Your task to perform on an android device: Open Google Chrome and open the bookmarks view Image 0: 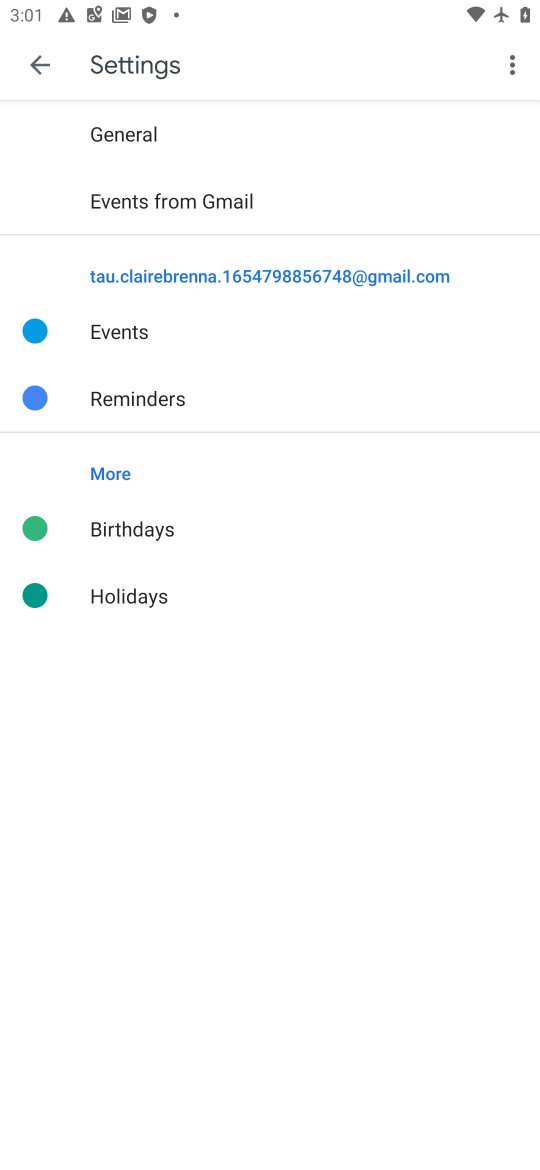
Step 0: press back button
Your task to perform on an android device: Open Google Chrome and open the bookmarks view Image 1: 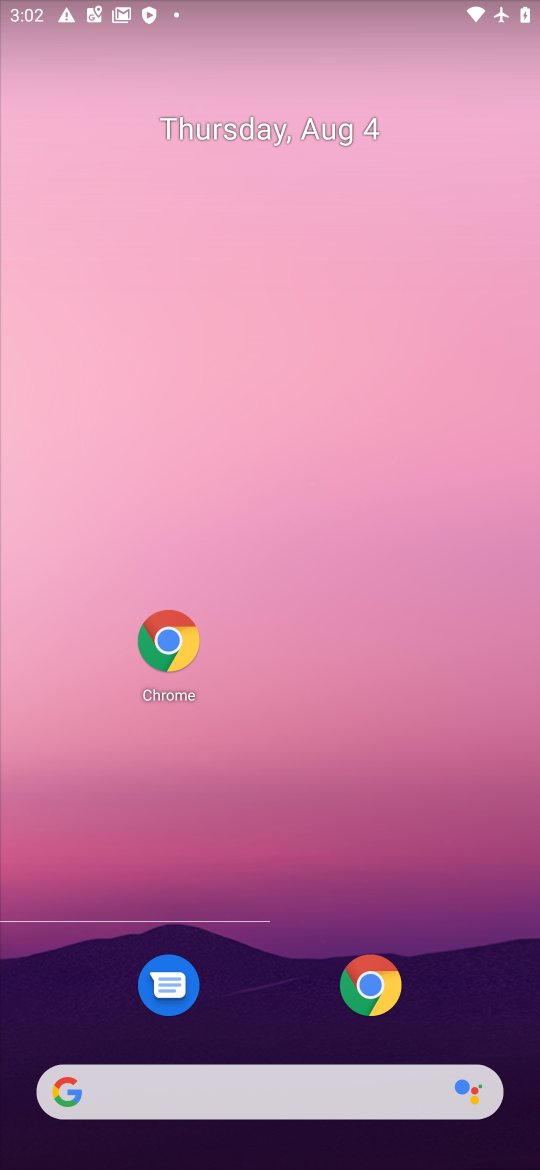
Step 1: drag from (255, 745) to (232, 415)
Your task to perform on an android device: Open Google Chrome and open the bookmarks view Image 2: 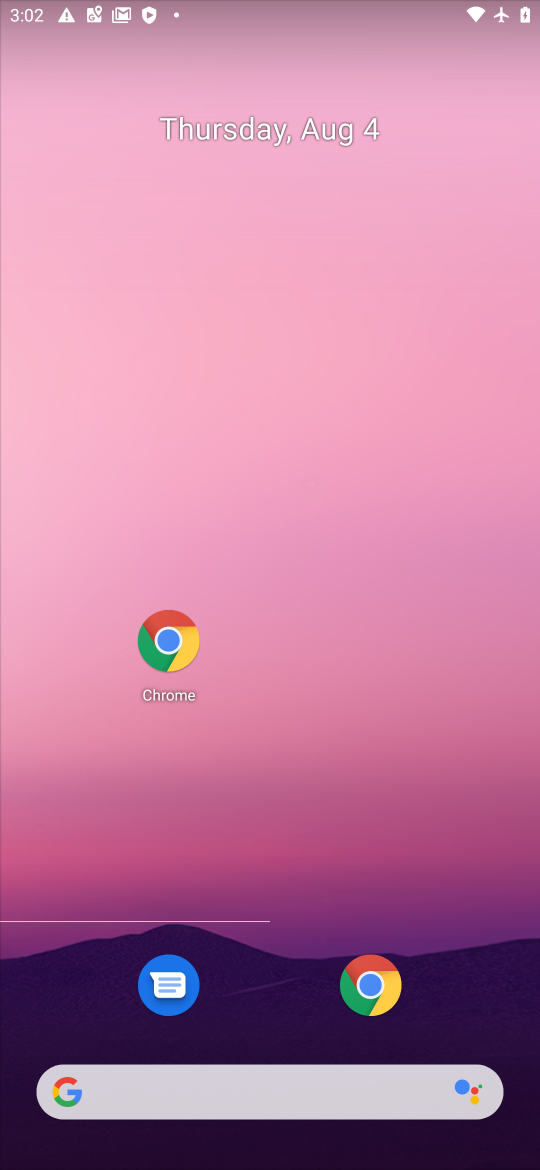
Step 2: drag from (258, 952) to (286, 313)
Your task to perform on an android device: Open Google Chrome and open the bookmarks view Image 3: 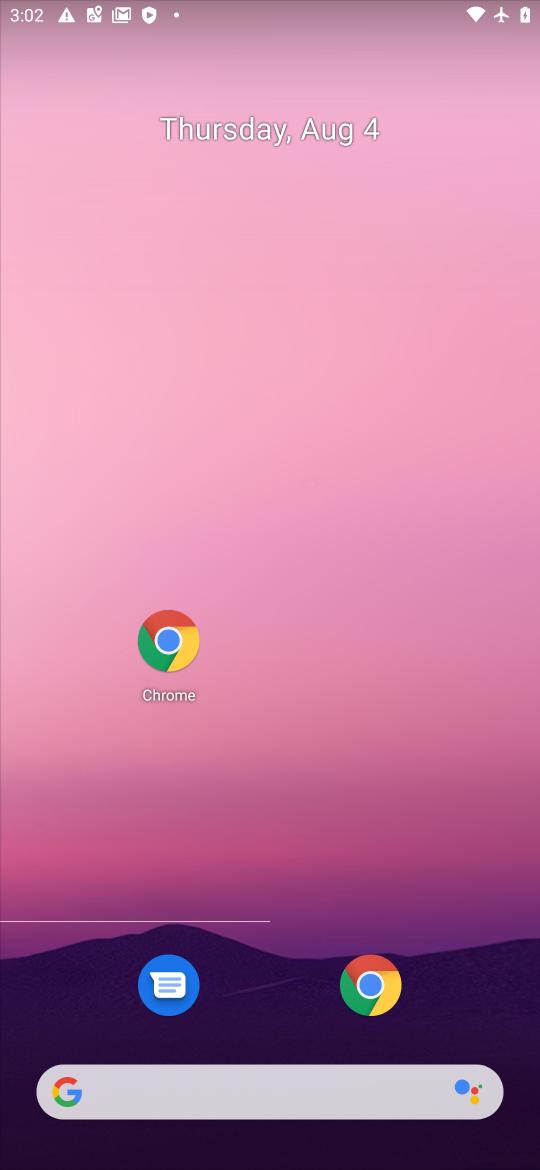
Step 3: drag from (280, 1023) to (297, 491)
Your task to perform on an android device: Open Google Chrome and open the bookmarks view Image 4: 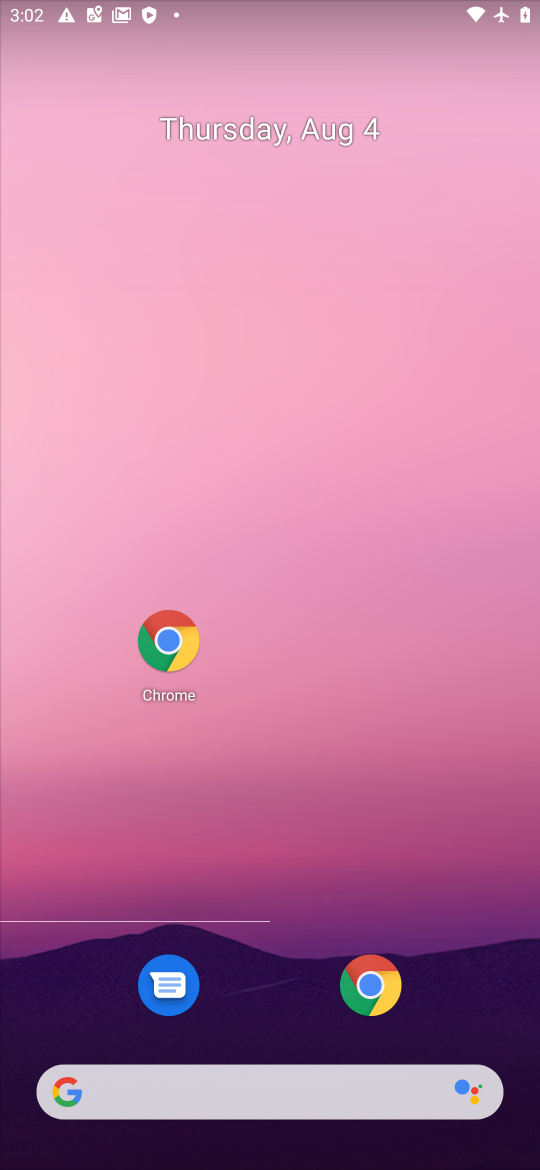
Step 4: drag from (269, 363) to (267, 294)
Your task to perform on an android device: Open Google Chrome and open the bookmarks view Image 5: 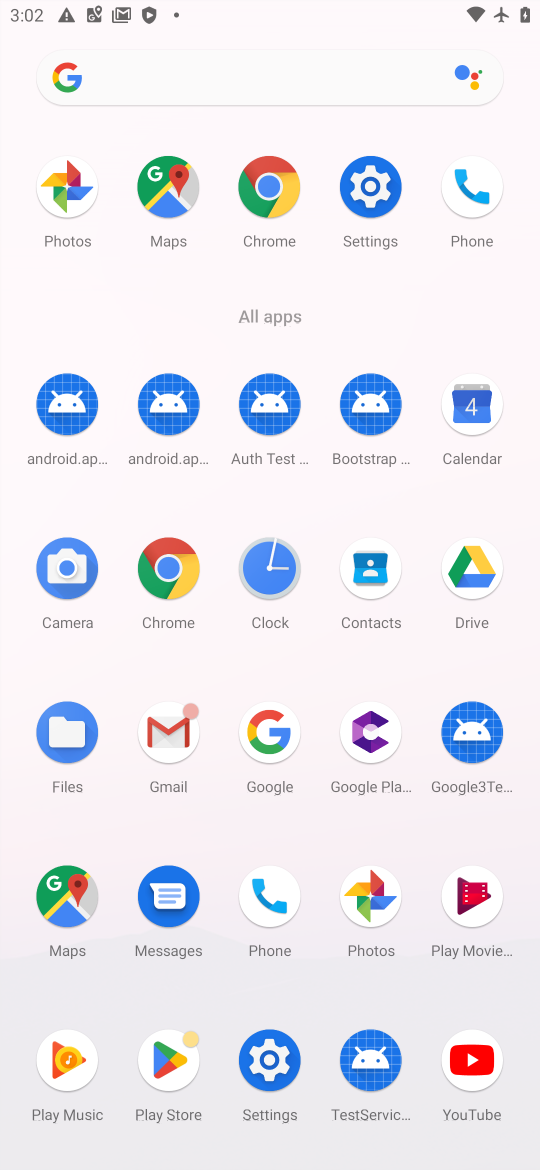
Step 5: drag from (287, 834) to (257, 165)
Your task to perform on an android device: Open Google Chrome and open the bookmarks view Image 6: 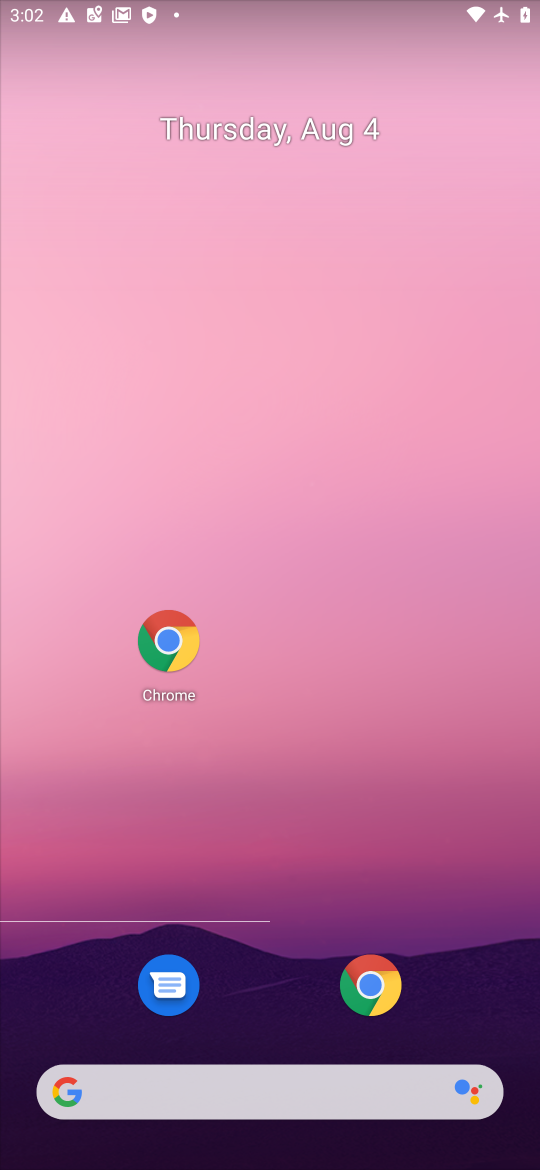
Step 6: drag from (234, 288) to (213, 136)
Your task to perform on an android device: Open Google Chrome and open the bookmarks view Image 7: 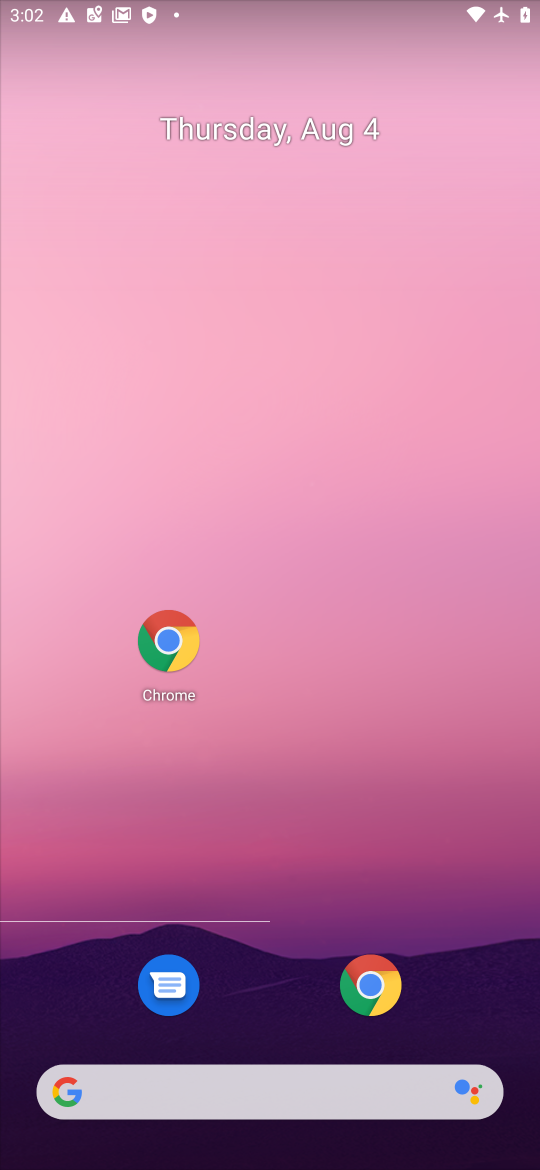
Step 7: drag from (201, 140) to (199, 41)
Your task to perform on an android device: Open Google Chrome and open the bookmarks view Image 8: 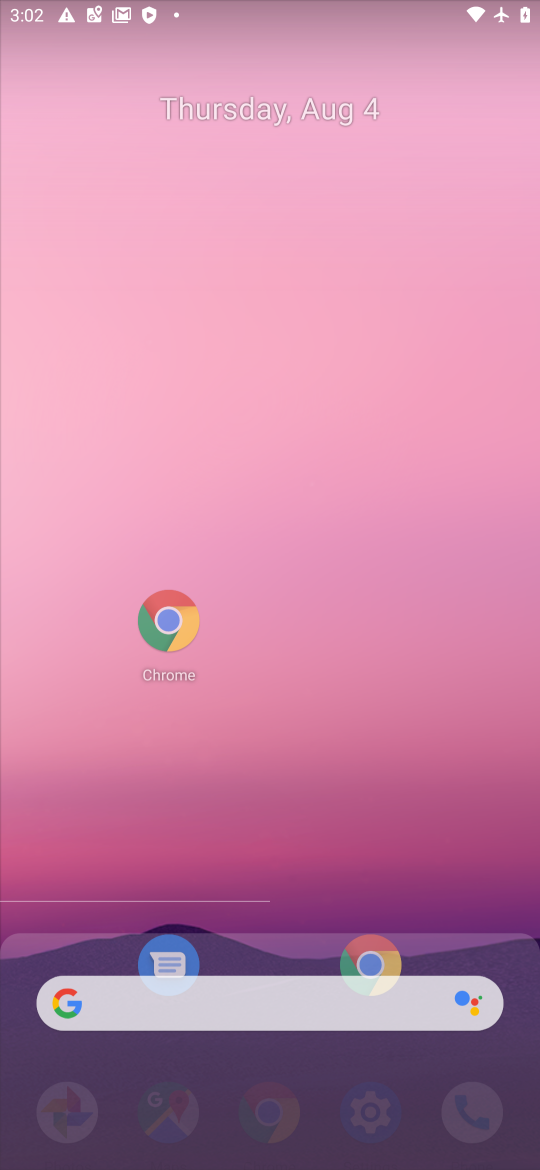
Step 8: drag from (148, 471) to (270, 244)
Your task to perform on an android device: Open Google Chrome and open the bookmarks view Image 9: 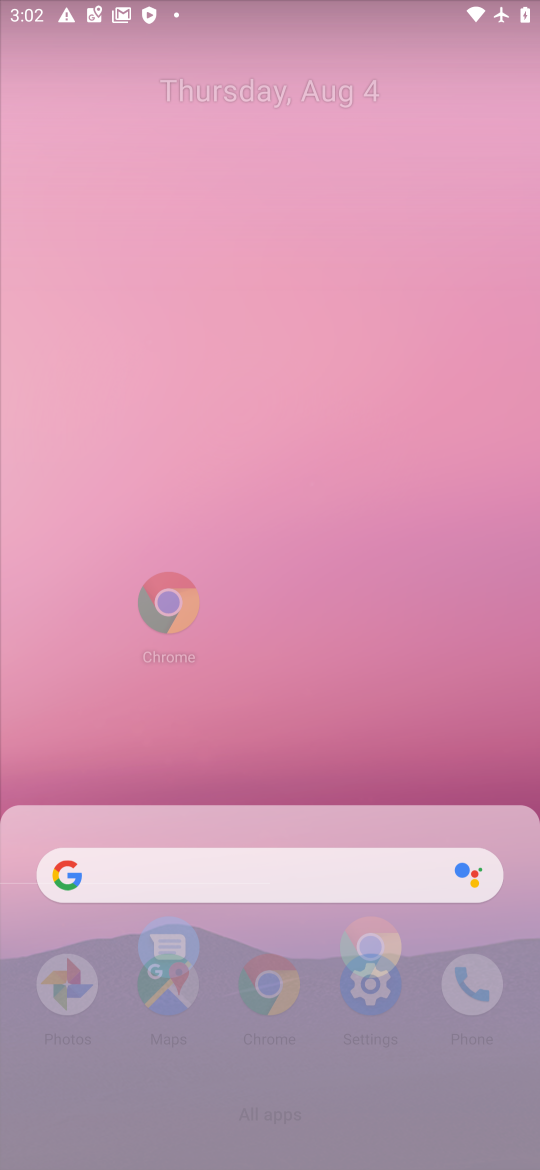
Step 9: drag from (278, 922) to (241, 422)
Your task to perform on an android device: Open Google Chrome and open the bookmarks view Image 10: 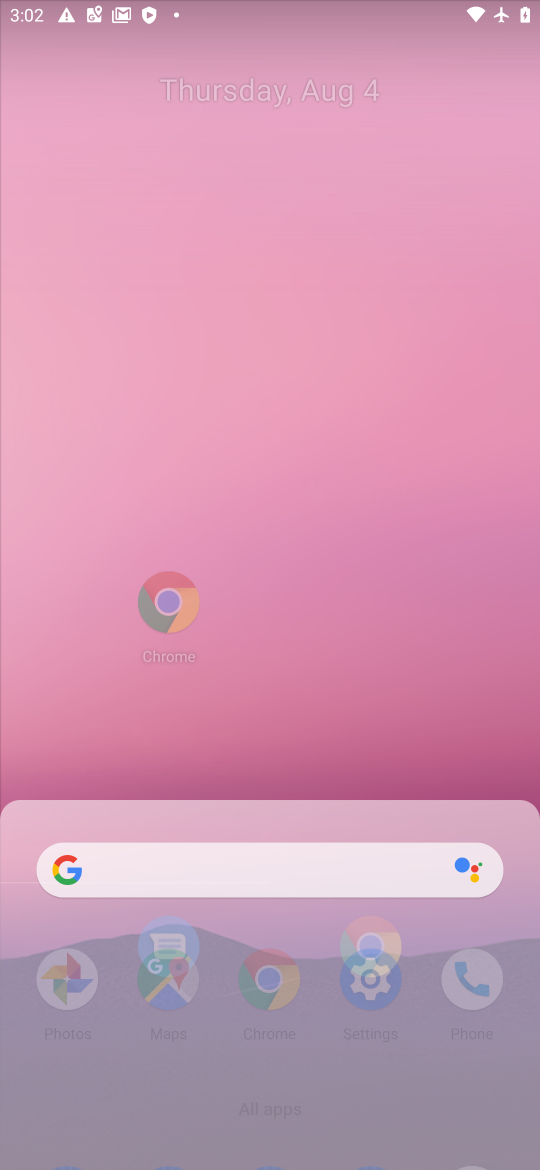
Step 10: drag from (215, 570) to (217, 378)
Your task to perform on an android device: Open Google Chrome and open the bookmarks view Image 11: 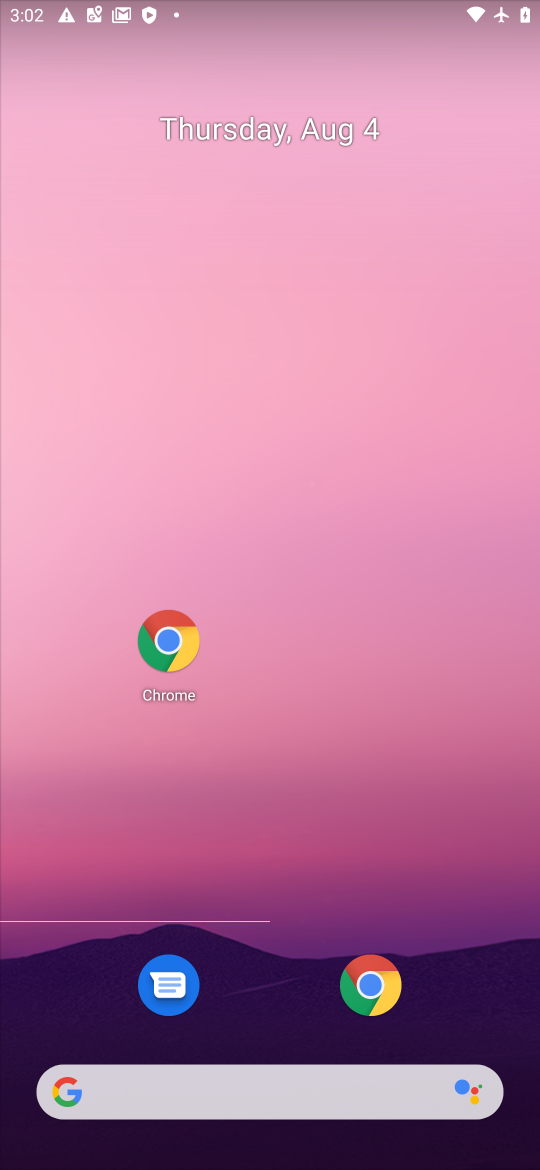
Step 11: click (288, 438)
Your task to perform on an android device: Open Google Chrome and open the bookmarks view Image 12: 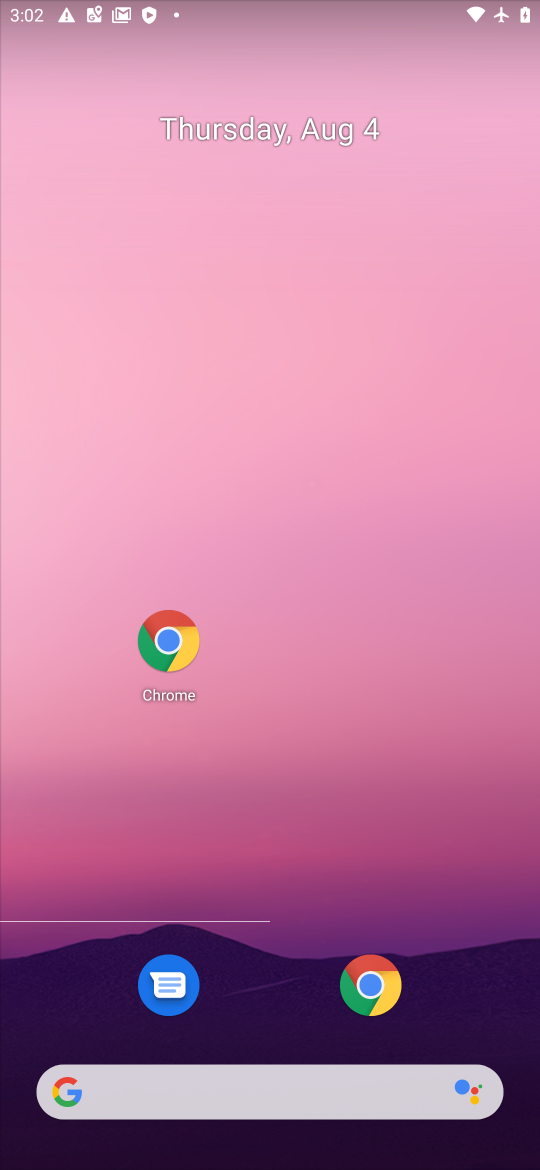
Step 12: drag from (267, 835) to (283, 404)
Your task to perform on an android device: Open Google Chrome and open the bookmarks view Image 13: 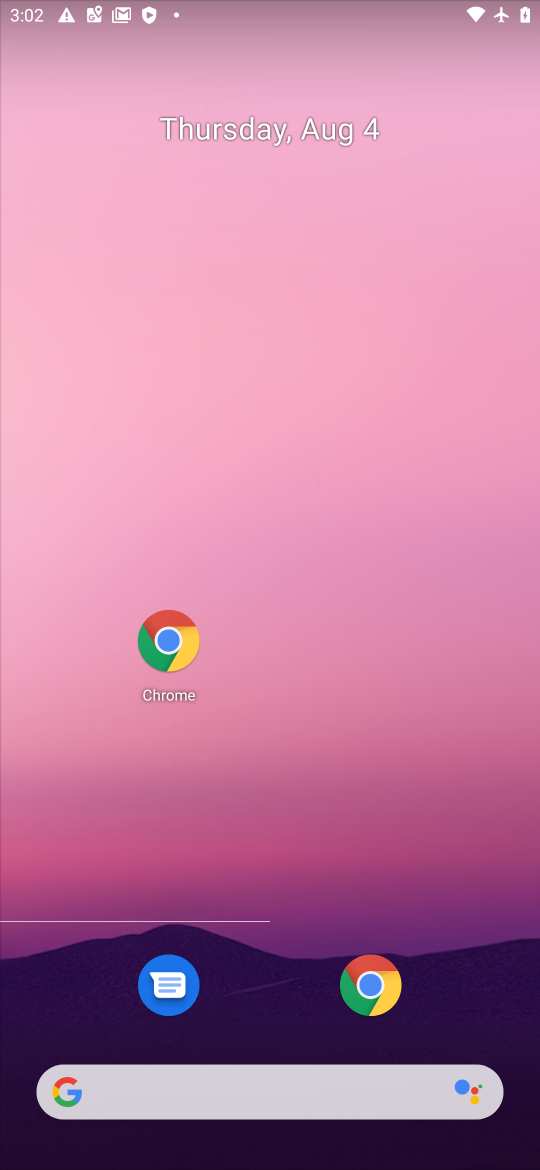
Step 13: drag from (276, 778) to (250, 339)
Your task to perform on an android device: Open Google Chrome and open the bookmarks view Image 14: 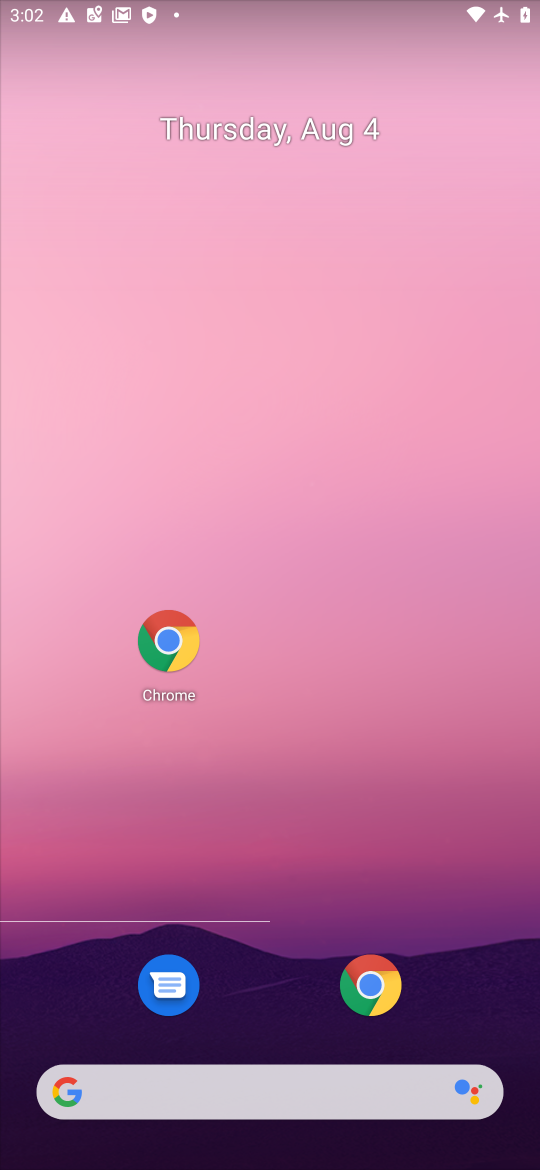
Step 14: drag from (214, 788) to (198, 582)
Your task to perform on an android device: Open Google Chrome and open the bookmarks view Image 15: 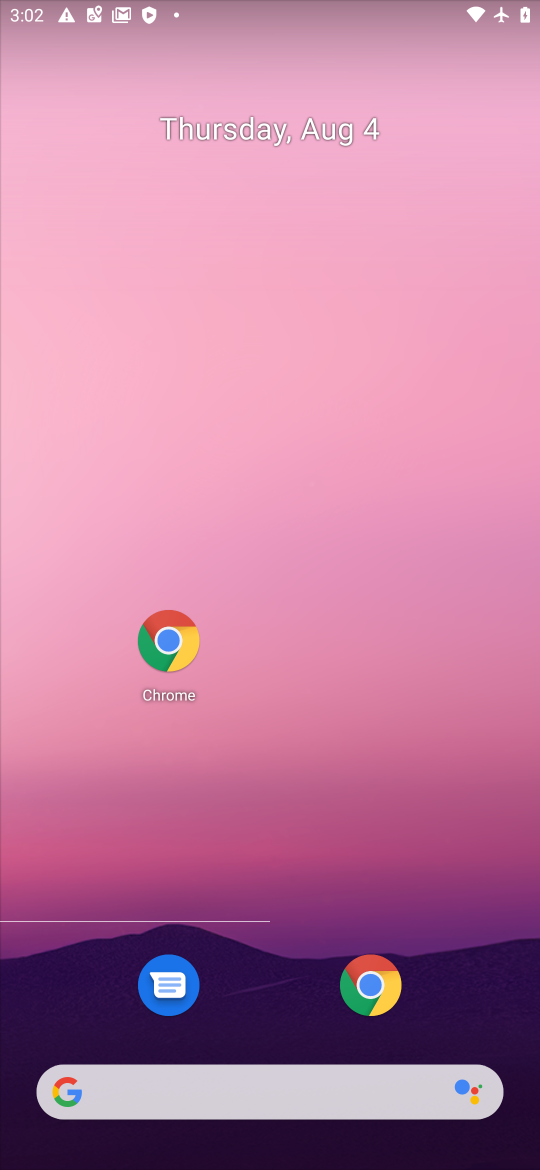
Step 15: drag from (341, 973) to (316, 493)
Your task to perform on an android device: Open Google Chrome and open the bookmarks view Image 16: 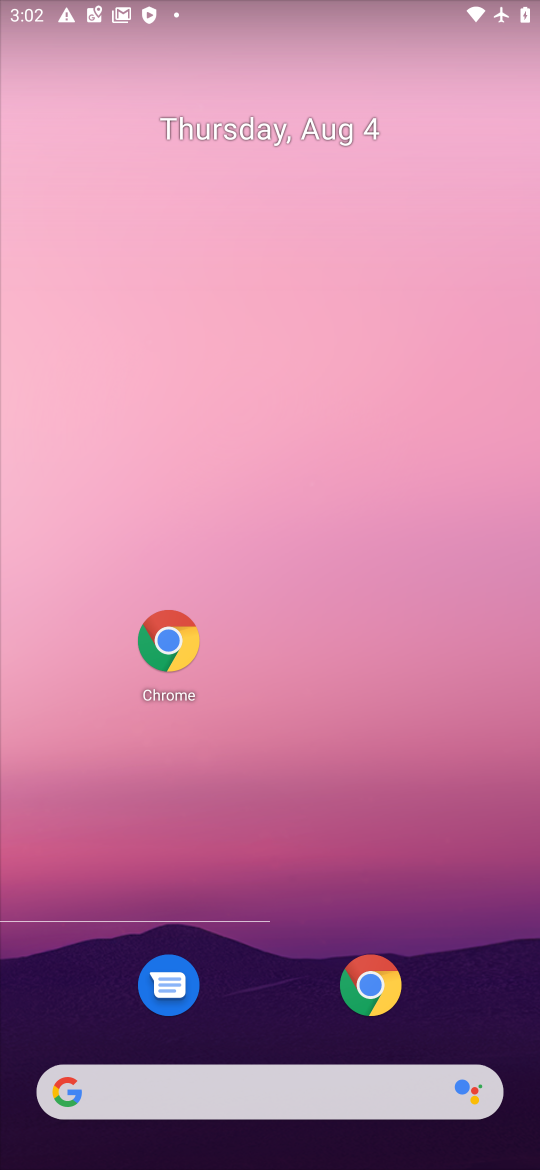
Step 16: drag from (305, 452) to (283, 286)
Your task to perform on an android device: Open Google Chrome and open the bookmarks view Image 17: 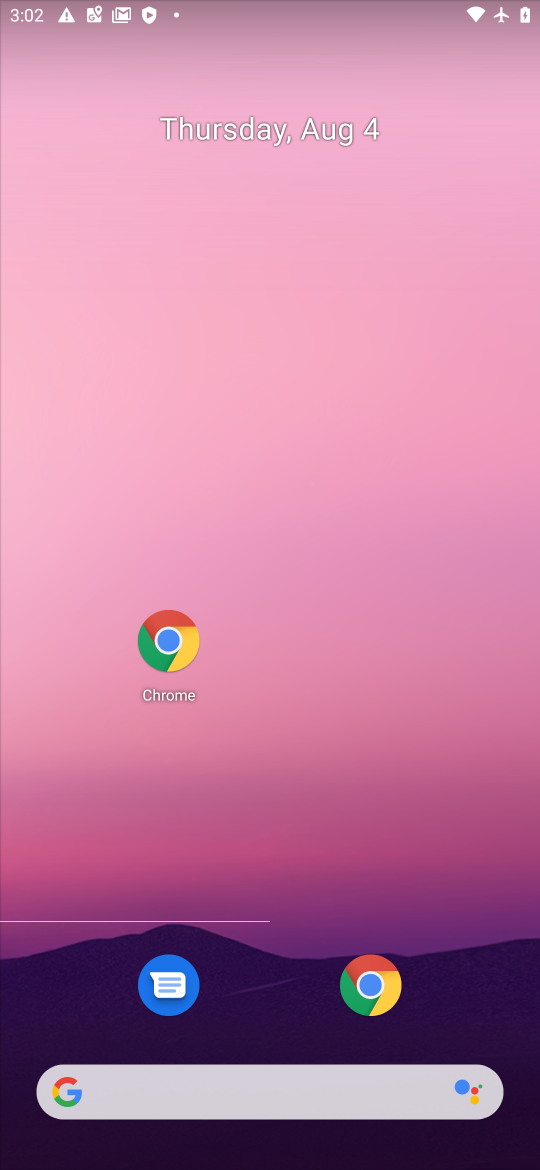
Step 17: drag from (232, 695) to (195, 280)
Your task to perform on an android device: Open Google Chrome and open the bookmarks view Image 18: 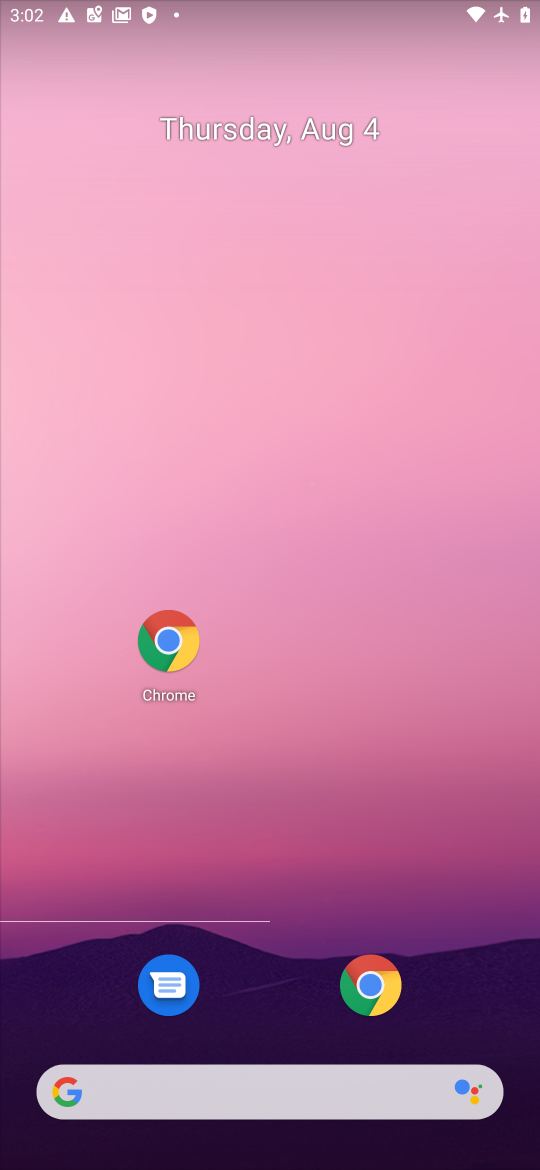
Step 18: drag from (288, 983) to (296, 451)
Your task to perform on an android device: Open Google Chrome and open the bookmarks view Image 19: 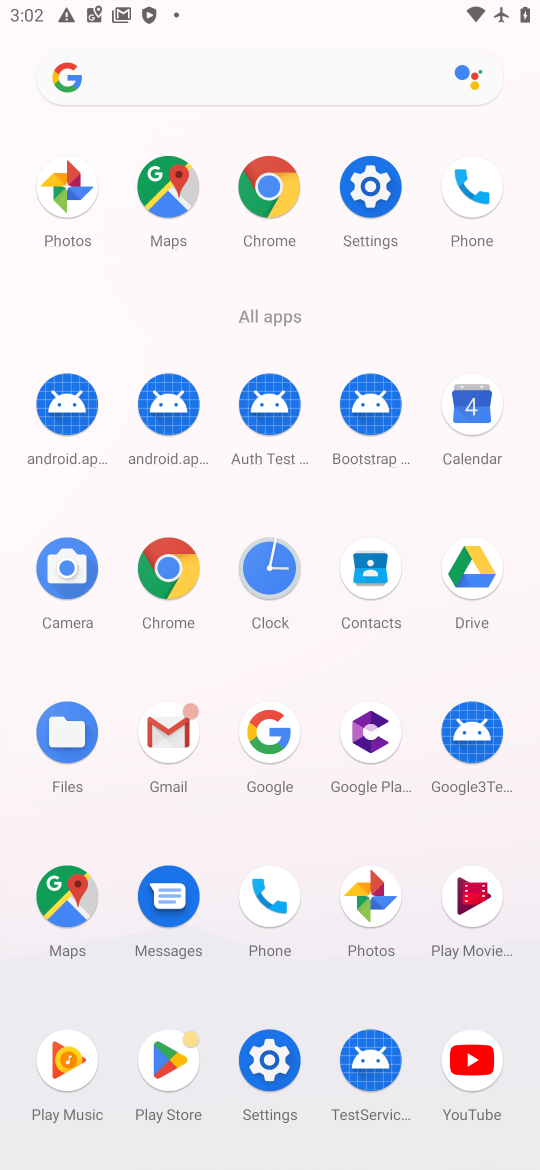
Step 19: click (152, 566)
Your task to perform on an android device: Open Google Chrome and open the bookmarks view Image 20: 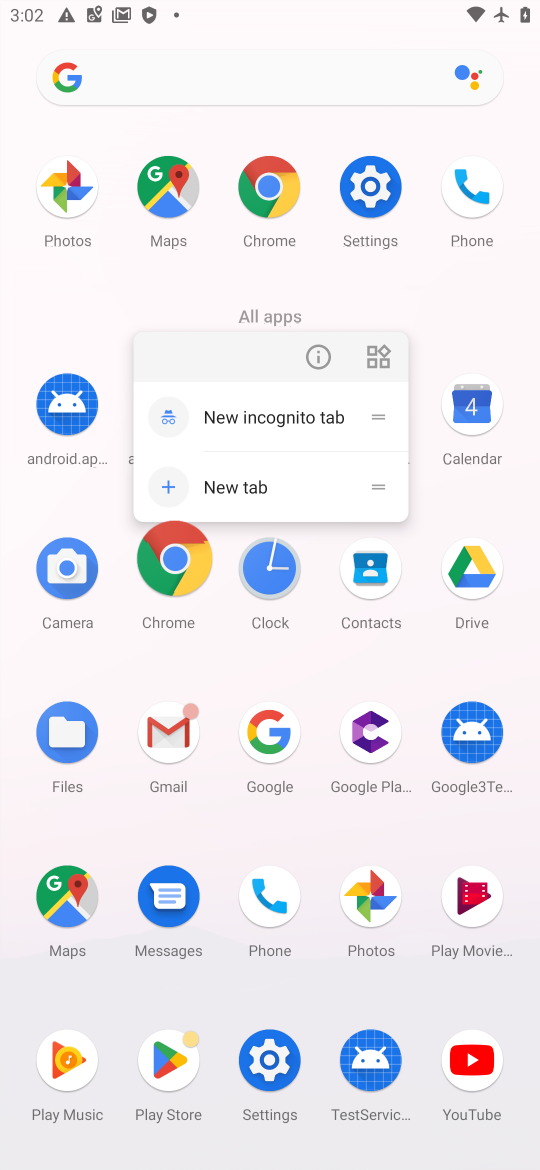
Step 20: click (158, 556)
Your task to perform on an android device: Open Google Chrome and open the bookmarks view Image 21: 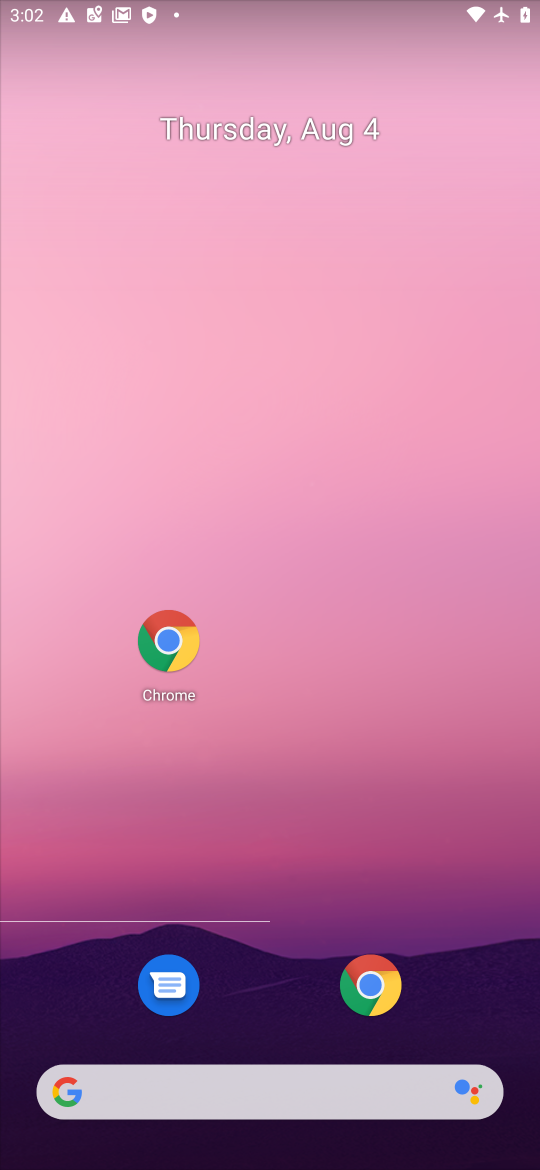
Step 21: click (177, 557)
Your task to perform on an android device: Open Google Chrome and open the bookmarks view Image 22: 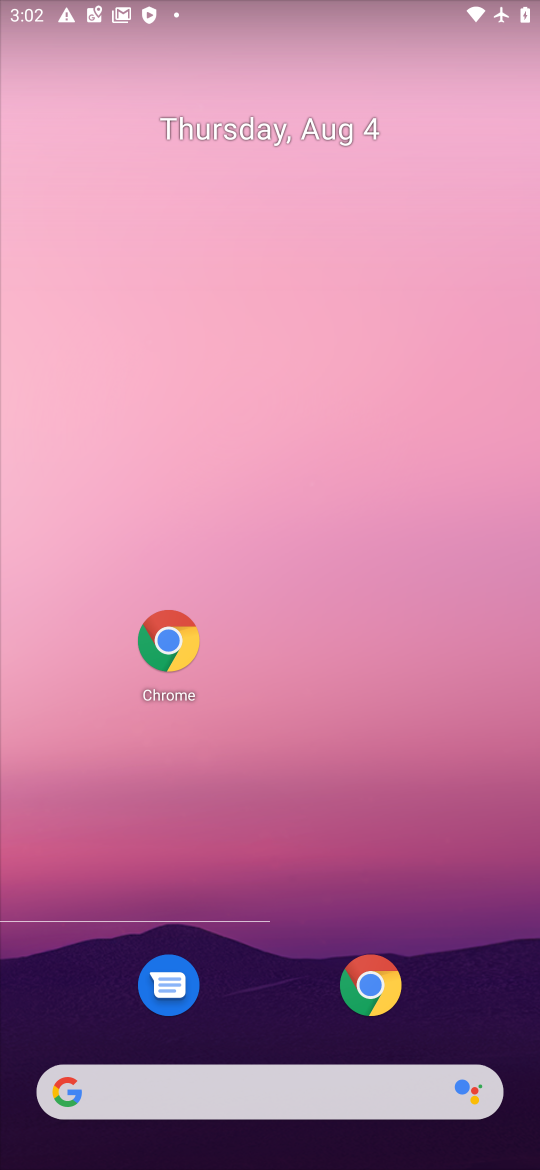
Step 22: click (165, 669)
Your task to perform on an android device: Open Google Chrome and open the bookmarks view Image 23: 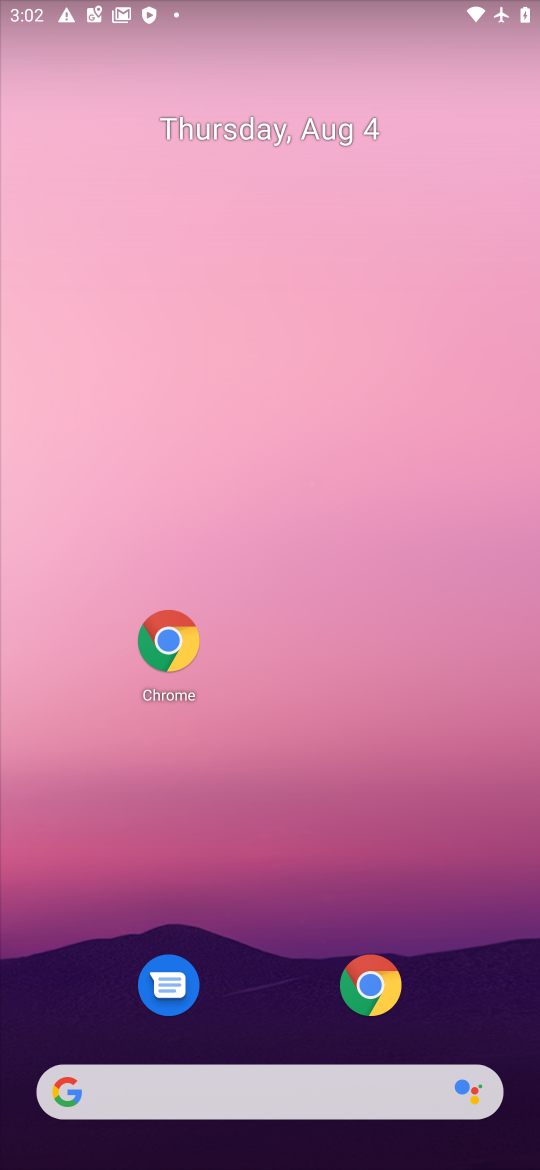
Step 23: drag from (220, 806) to (284, 131)
Your task to perform on an android device: Open Google Chrome and open the bookmarks view Image 24: 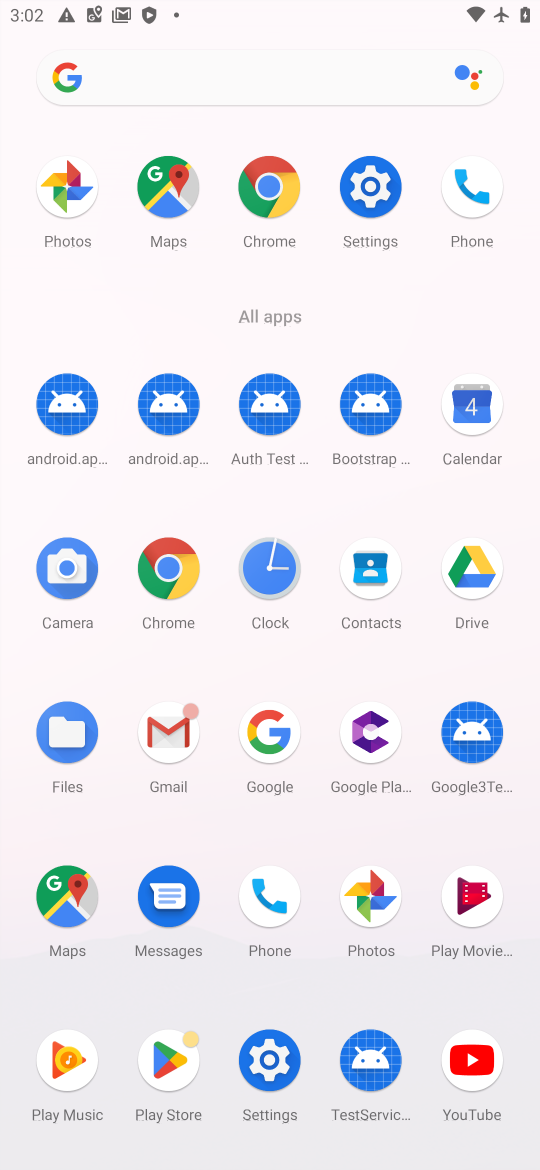
Step 24: click (163, 553)
Your task to perform on an android device: Open Google Chrome and open the bookmarks view Image 25: 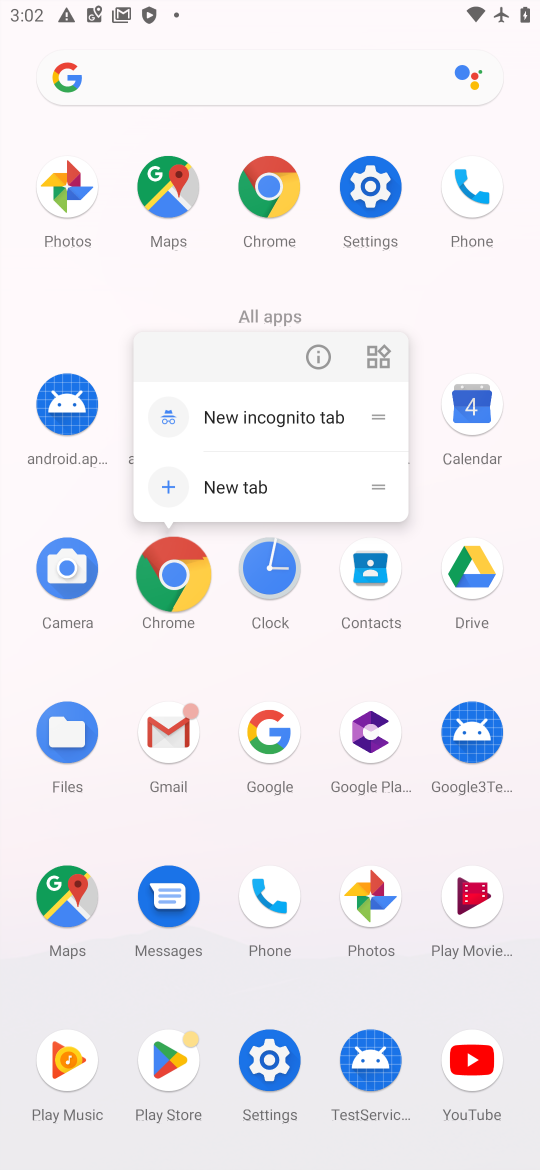
Step 25: click (171, 561)
Your task to perform on an android device: Open Google Chrome and open the bookmarks view Image 26: 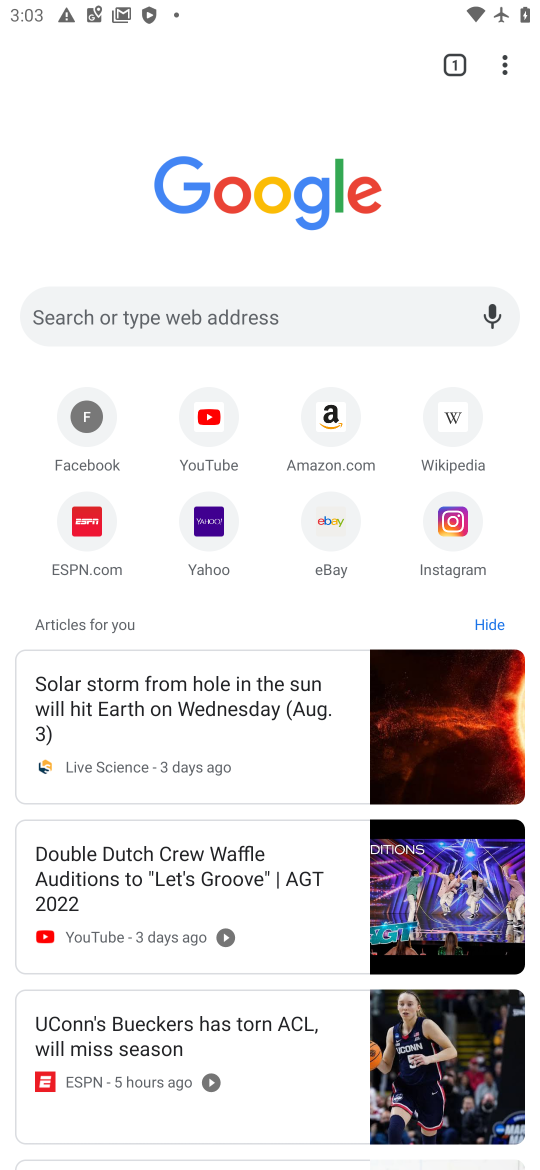
Step 26: drag from (503, 60) to (304, 51)
Your task to perform on an android device: Open Google Chrome and open the bookmarks view Image 27: 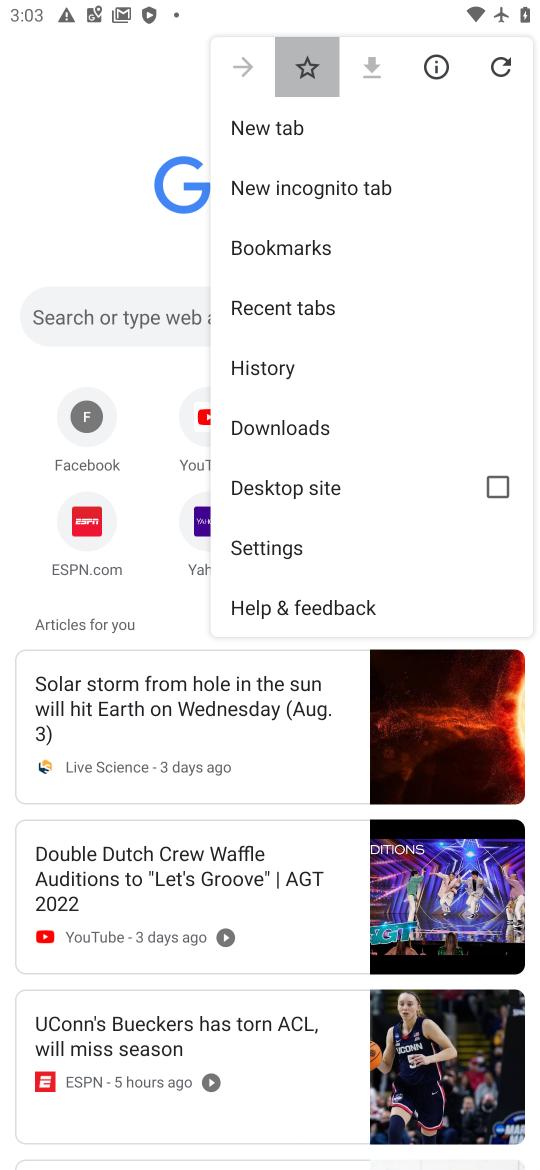
Step 27: click (304, 51)
Your task to perform on an android device: Open Google Chrome and open the bookmarks view Image 28: 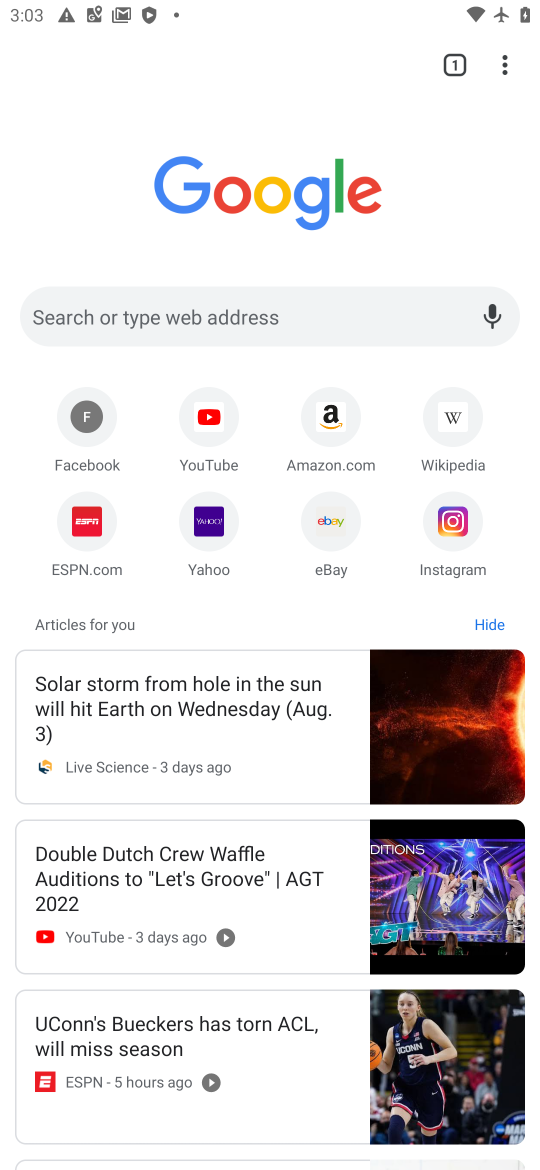
Step 28: task complete